Your task to perform on an android device: Do I have any events today? Image 0: 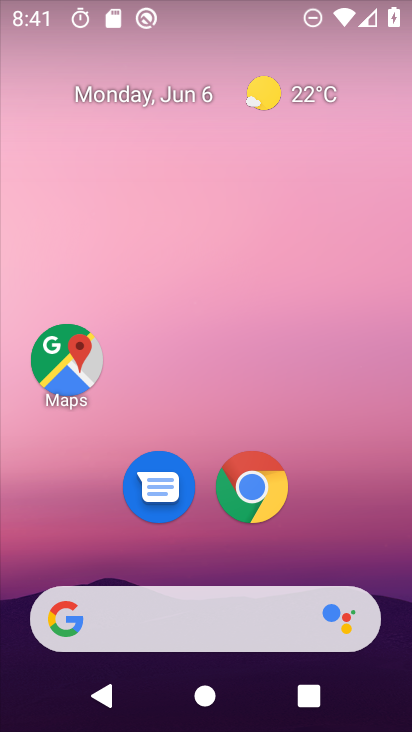
Step 0: drag from (397, 631) to (11, 386)
Your task to perform on an android device: Do I have any events today? Image 1: 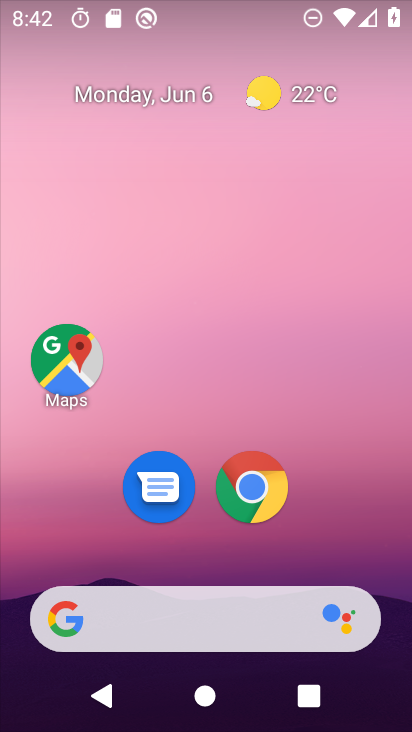
Step 1: drag from (397, 622) to (48, 8)
Your task to perform on an android device: Do I have any events today? Image 2: 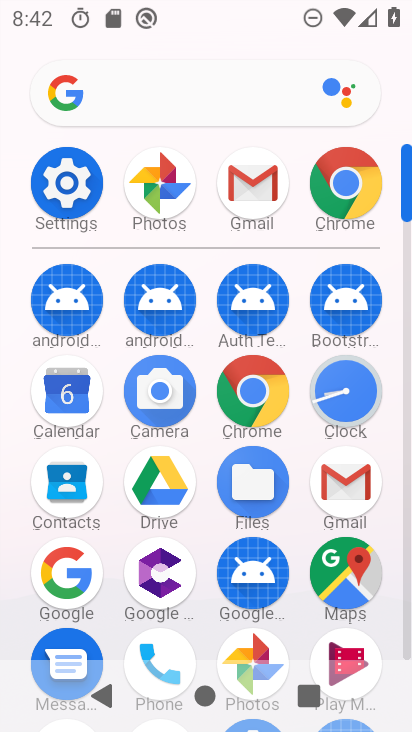
Step 2: click (71, 402)
Your task to perform on an android device: Do I have any events today? Image 3: 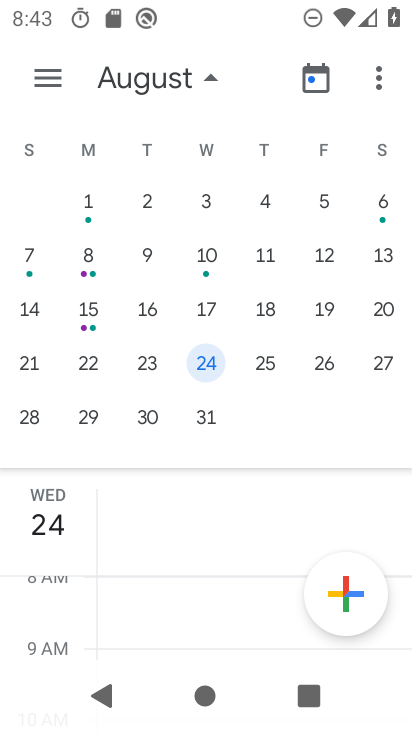
Step 3: task complete